Your task to perform on an android device: Toggle the flashlight Image 0: 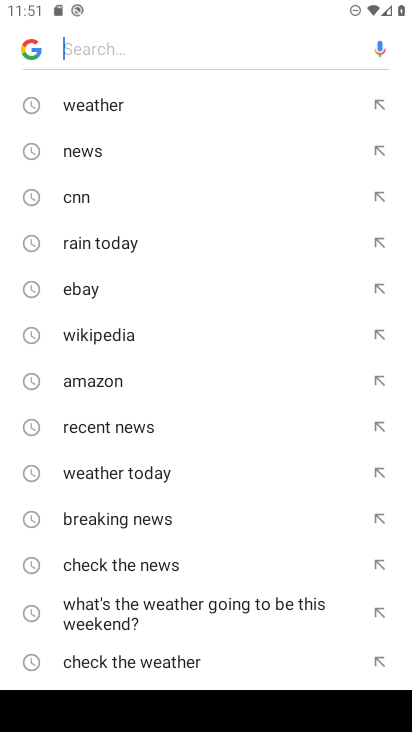
Step 0: press home button
Your task to perform on an android device: Toggle the flashlight Image 1: 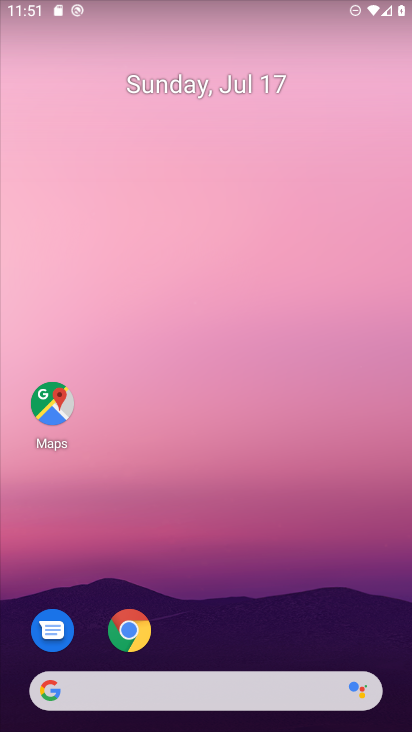
Step 1: drag from (198, 622) to (192, 48)
Your task to perform on an android device: Toggle the flashlight Image 2: 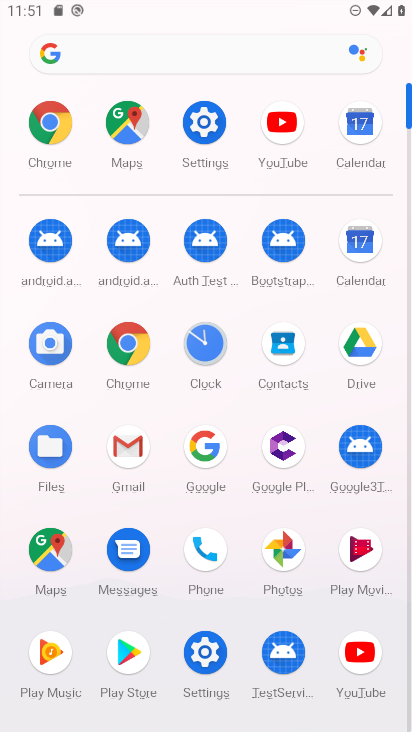
Step 2: click (199, 124)
Your task to perform on an android device: Toggle the flashlight Image 3: 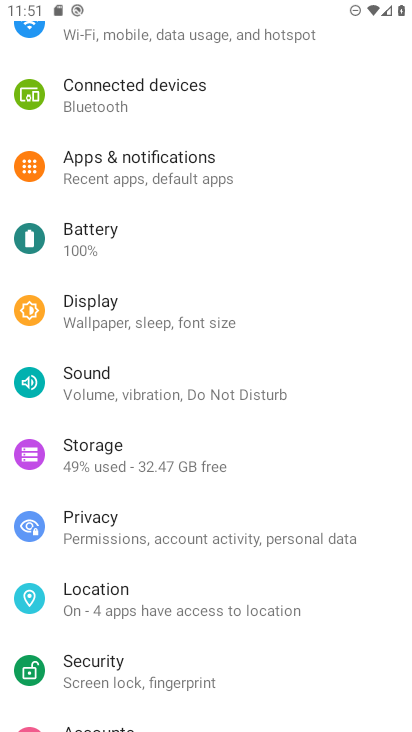
Step 3: task complete